Your task to perform on an android device: read, delete, or share a saved page in the chrome app Image 0: 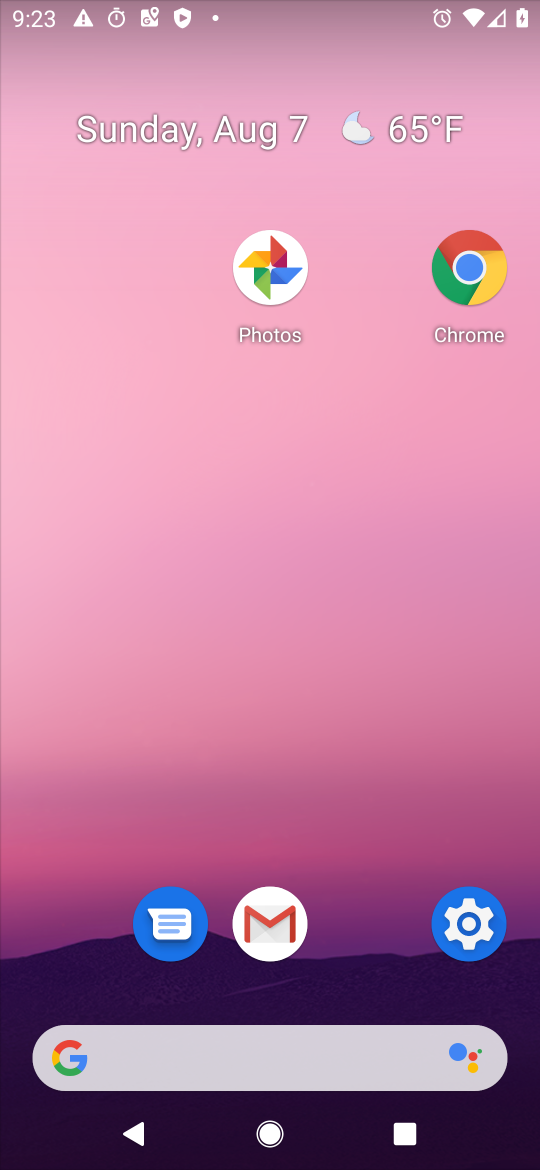
Step 0: press home button
Your task to perform on an android device: read, delete, or share a saved page in the chrome app Image 1: 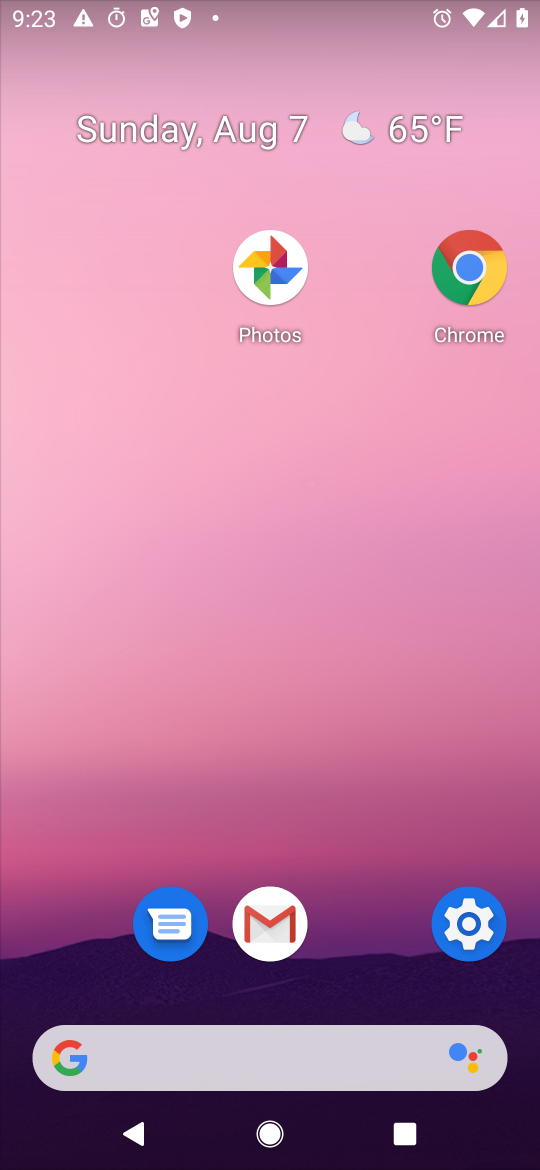
Step 1: drag from (399, 1099) to (324, 338)
Your task to perform on an android device: read, delete, or share a saved page in the chrome app Image 2: 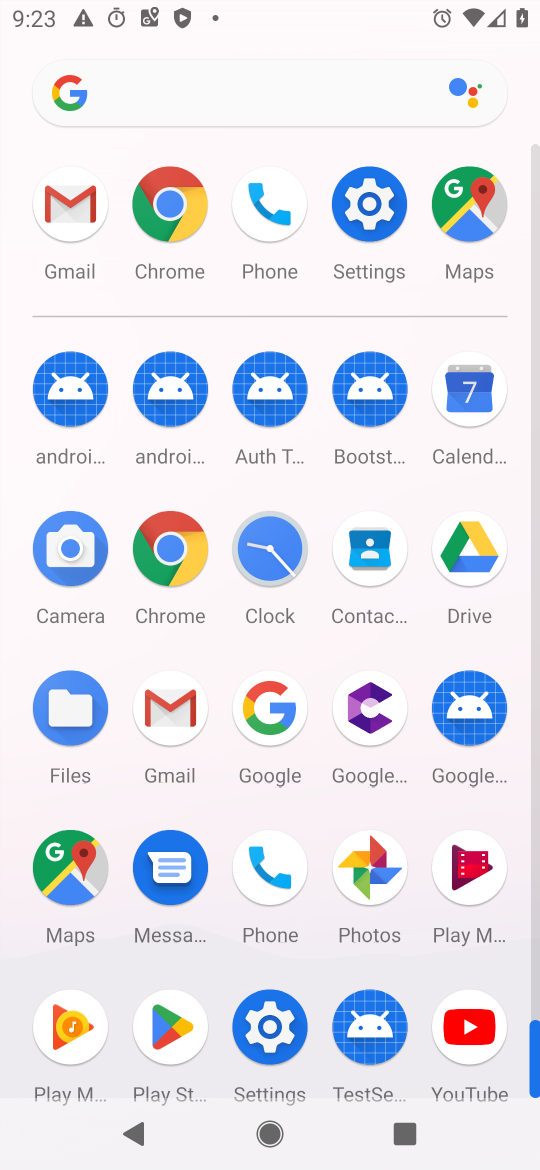
Step 2: click (146, 231)
Your task to perform on an android device: read, delete, or share a saved page in the chrome app Image 3: 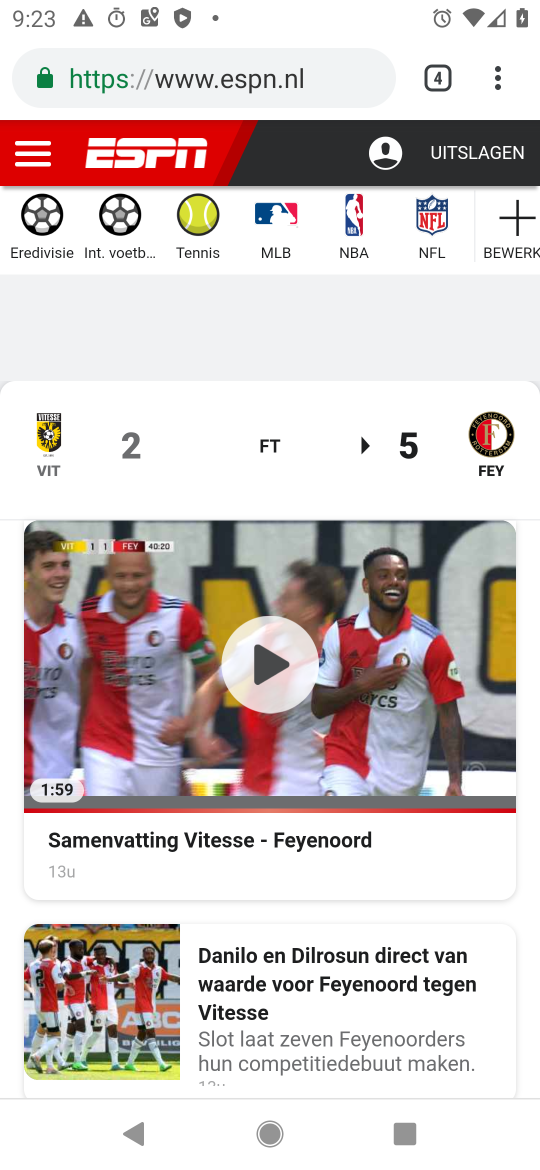
Step 3: click (496, 87)
Your task to perform on an android device: read, delete, or share a saved page in the chrome app Image 4: 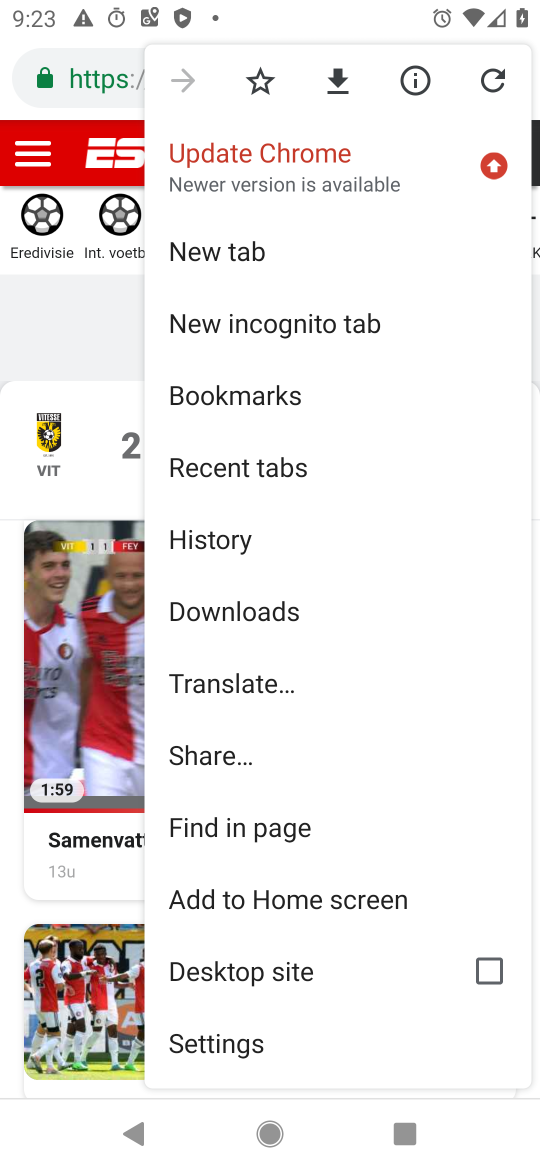
Step 4: click (192, 748)
Your task to perform on an android device: read, delete, or share a saved page in the chrome app Image 5: 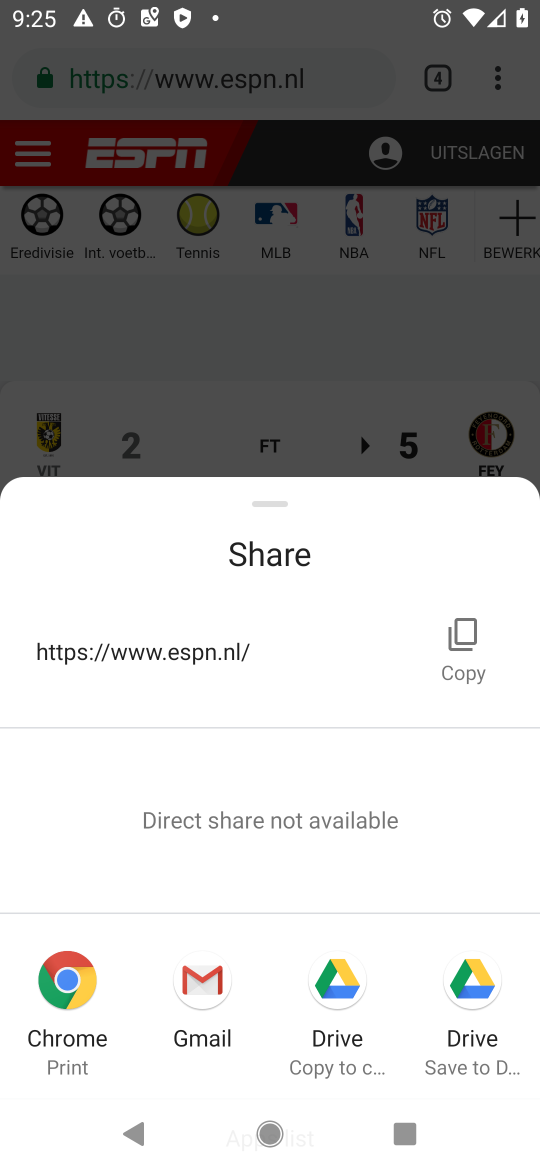
Step 5: task complete